Your task to perform on an android device: Open calendar and show me the first week of next month Image 0: 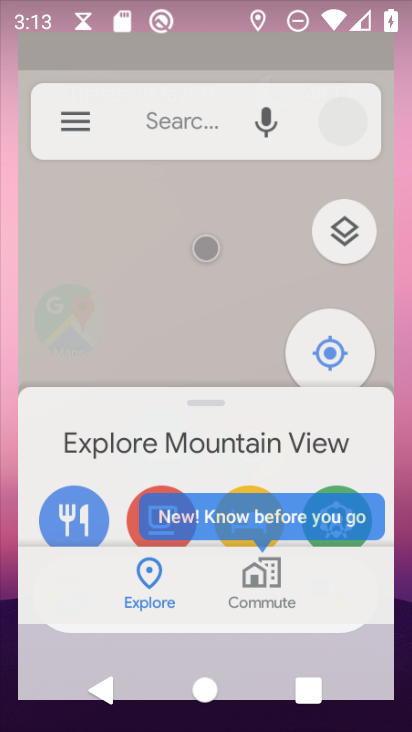
Step 0: drag from (348, 463) to (403, 155)
Your task to perform on an android device: Open calendar and show me the first week of next month Image 1: 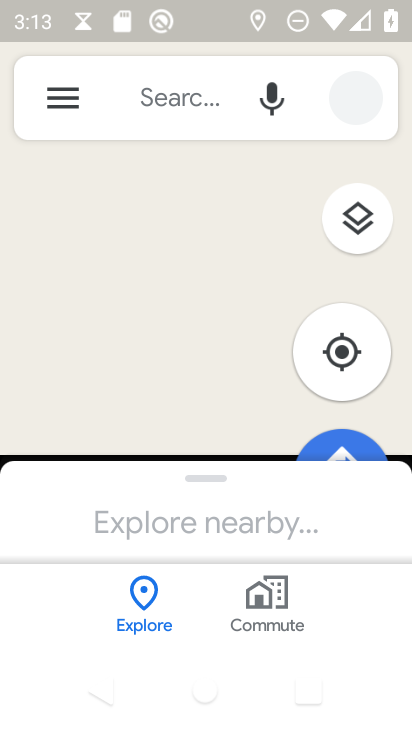
Step 1: press home button
Your task to perform on an android device: Open calendar and show me the first week of next month Image 2: 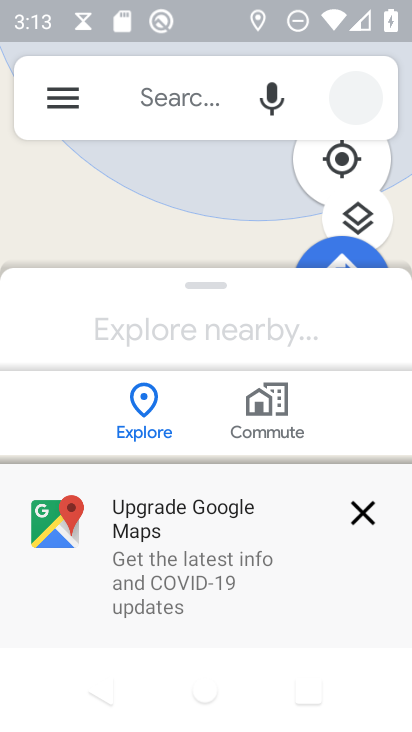
Step 2: click (364, 142)
Your task to perform on an android device: Open calendar and show me the first week of next month Image 3: 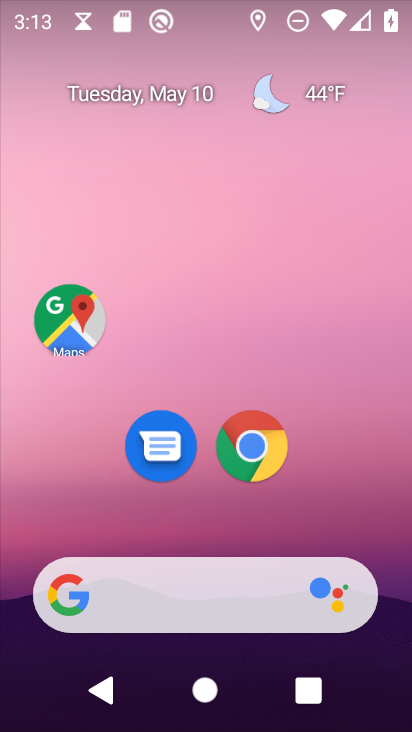
Step 3: drag from (373, 494) to (318, 53)
Your task to perform on an android device: Open calendar and show me the first week of next month Image 4: 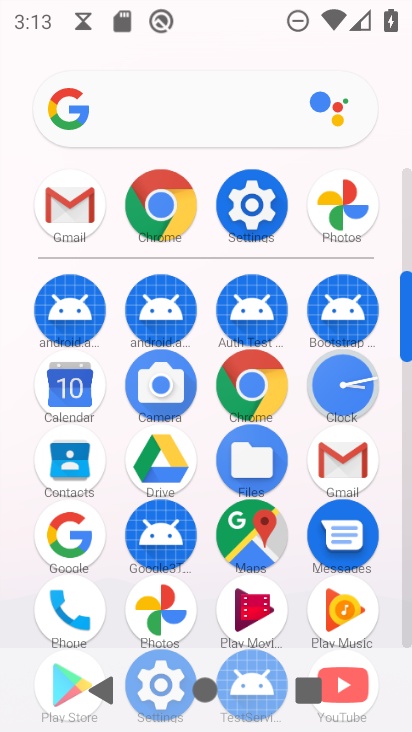
Step 4: click (68, 405)
Your task to perform on an android device: Open calendar and show me the first week of next month Image 5: 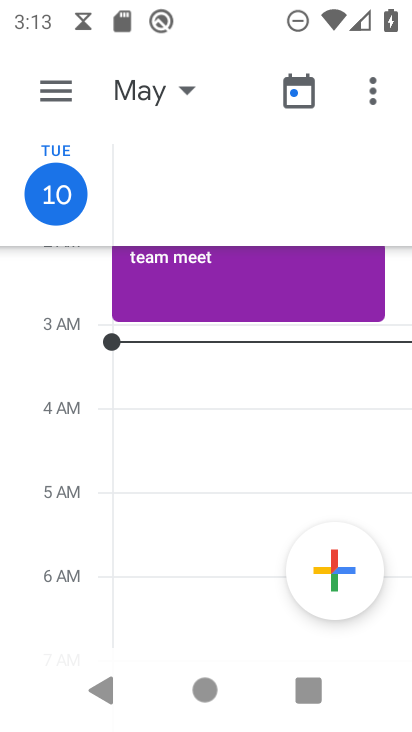
Step 5: click (154, 98)
Your task to perform on an android device: Open calendar and show me the first week of next month Image 6: 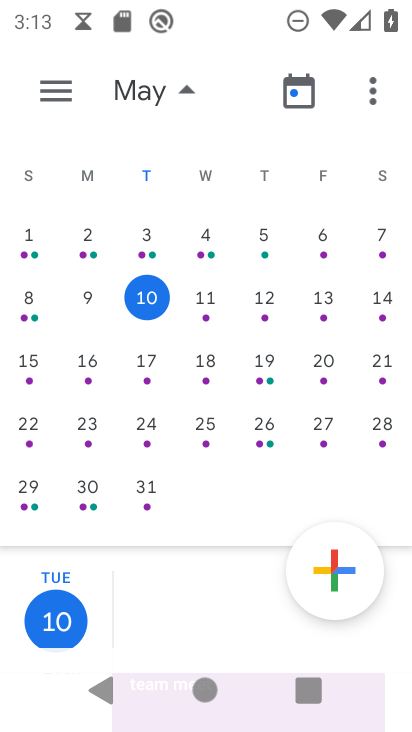
Step 6: drag from (326, 355) to (70, 361)
Your task to perform on an android device: Open calendar and show me the first week of next month Image 7: 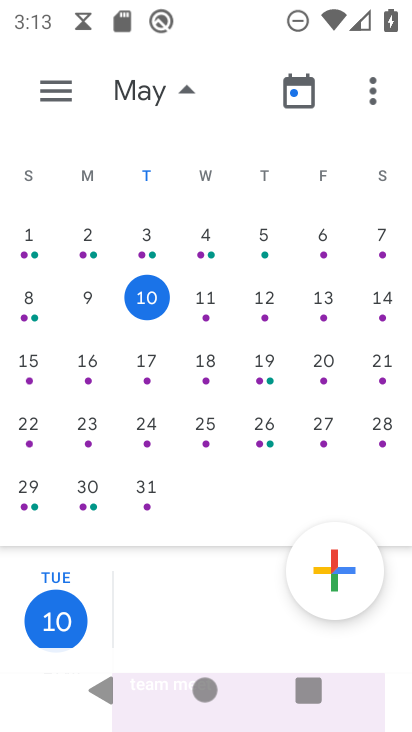
Step 7: click (214, 251)
Your task to perform on an android device: Open calendar and show me the first week of next month Image 8: 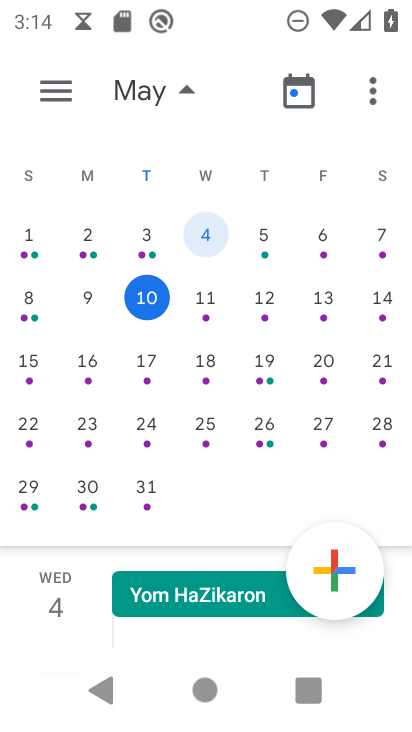
Step 8: task complete